Your task to perform on an android device: Open notification settings Image 0: 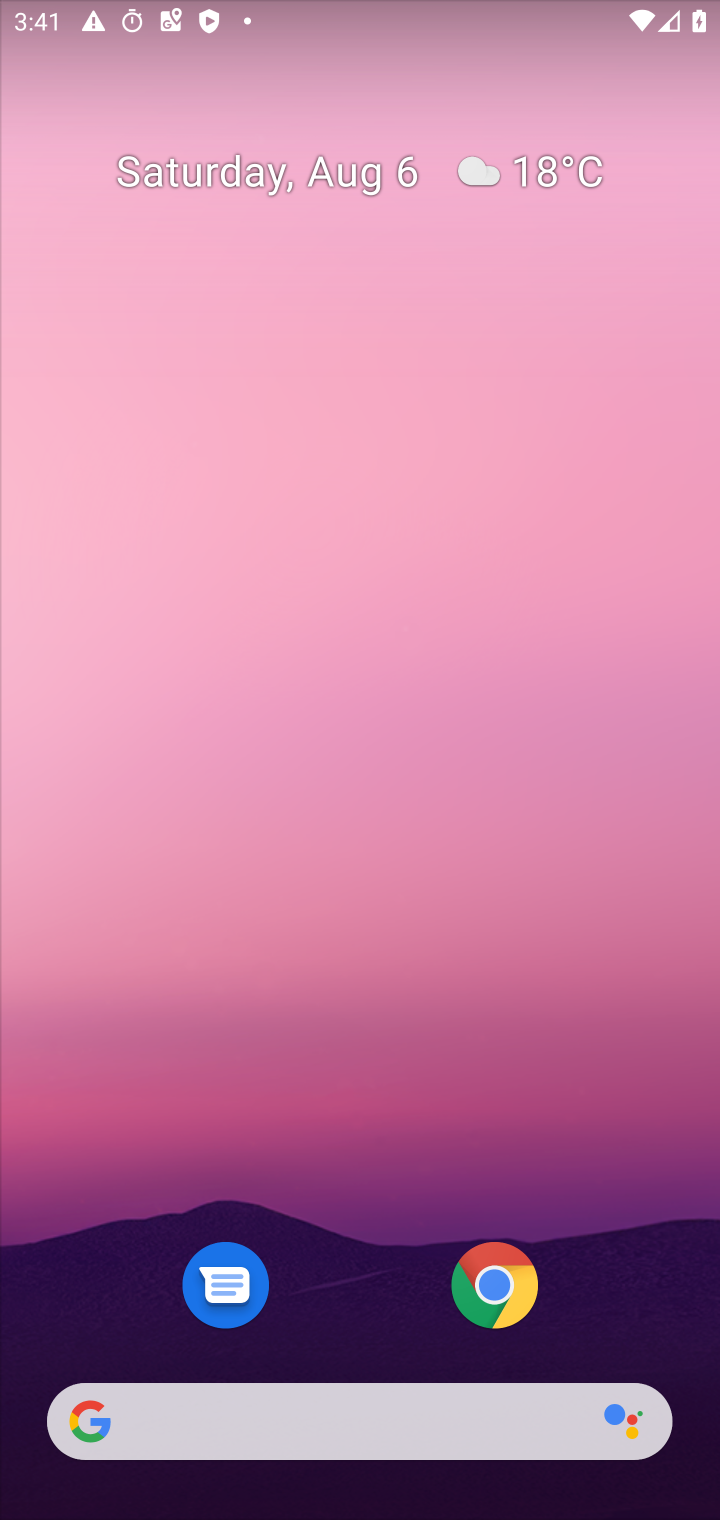
Step 0: press home button
Your task to perform on an android device: Open notification settings Image 1: 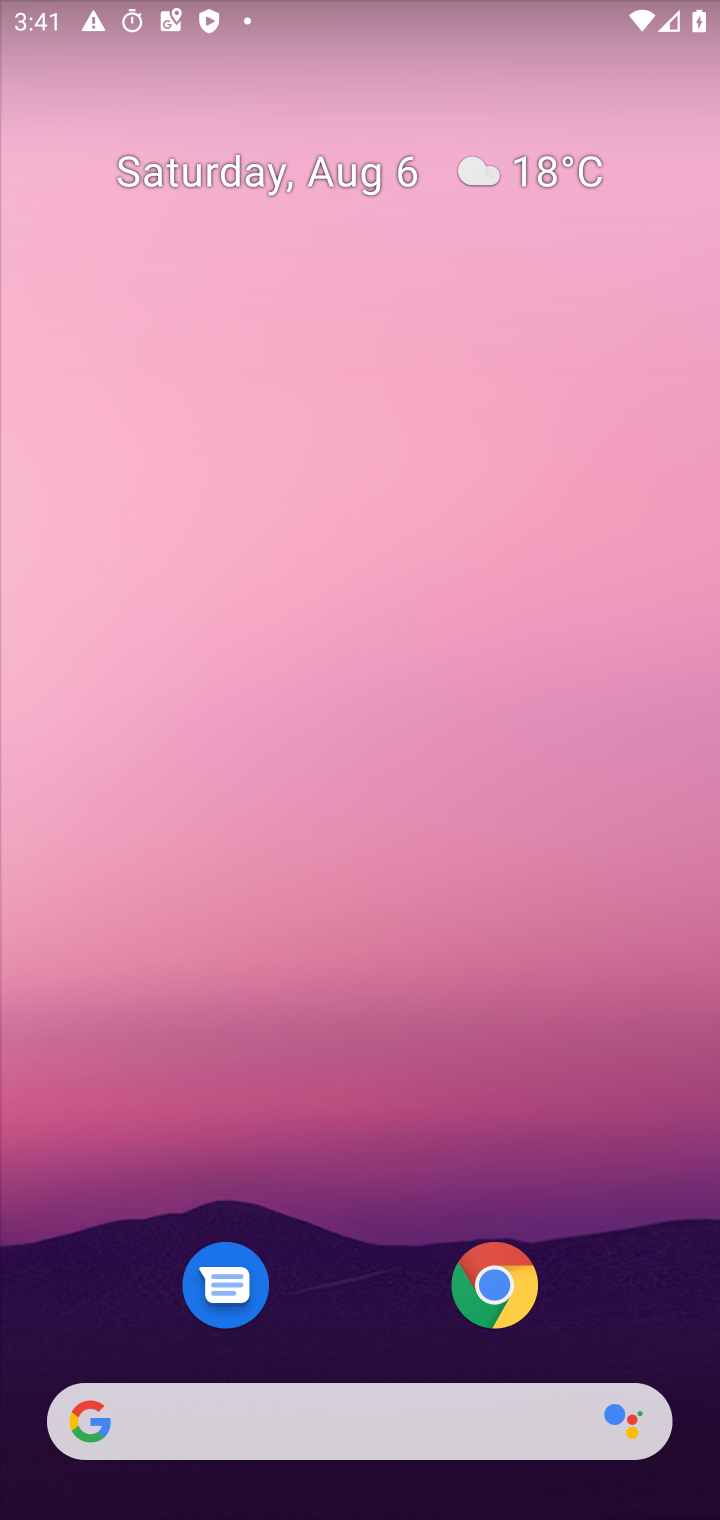
Step 1: drag from (374, 1343) to (417, 189)
Your task to perform on an android device: Open notification settings Image 2: 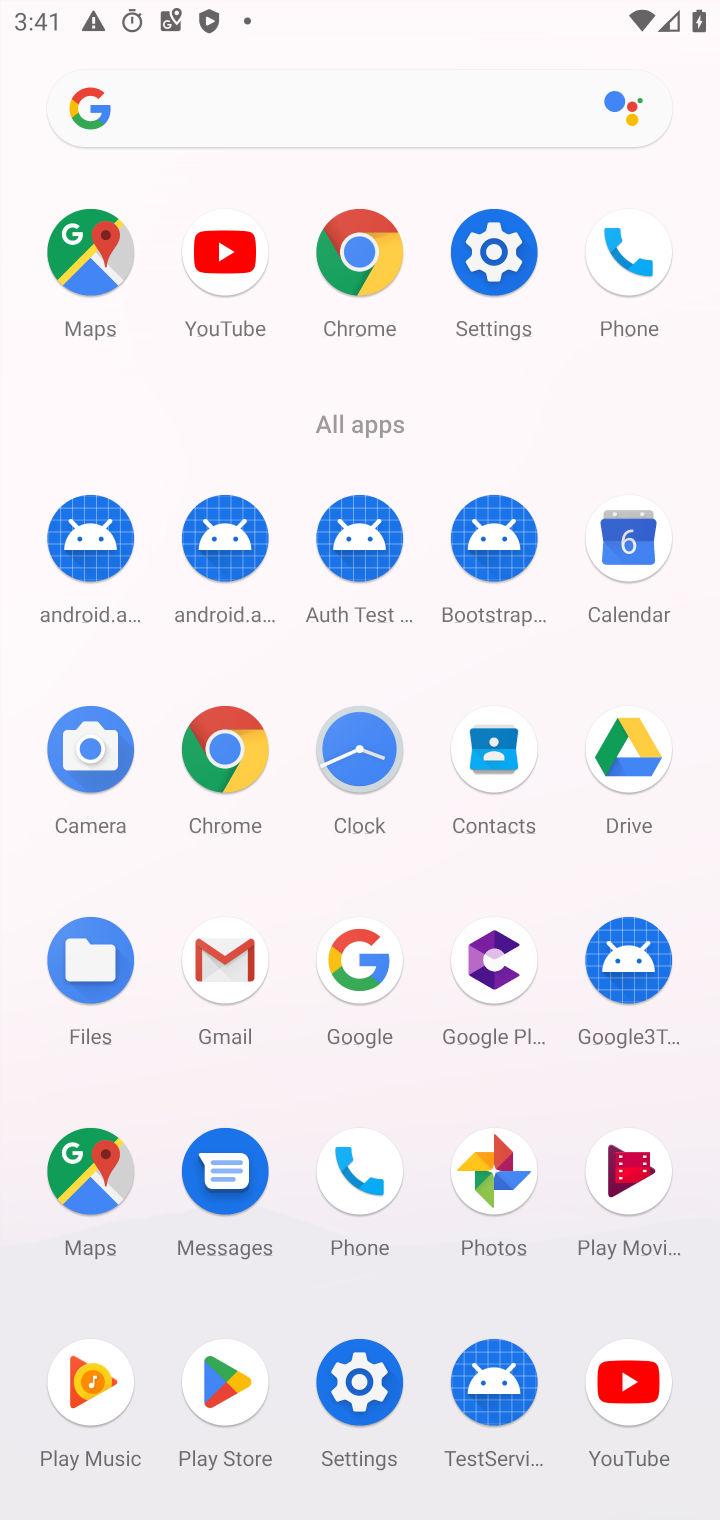
Step 2: click (486, 243)
Your task to perform on an android device: Open notification settings Image 3: 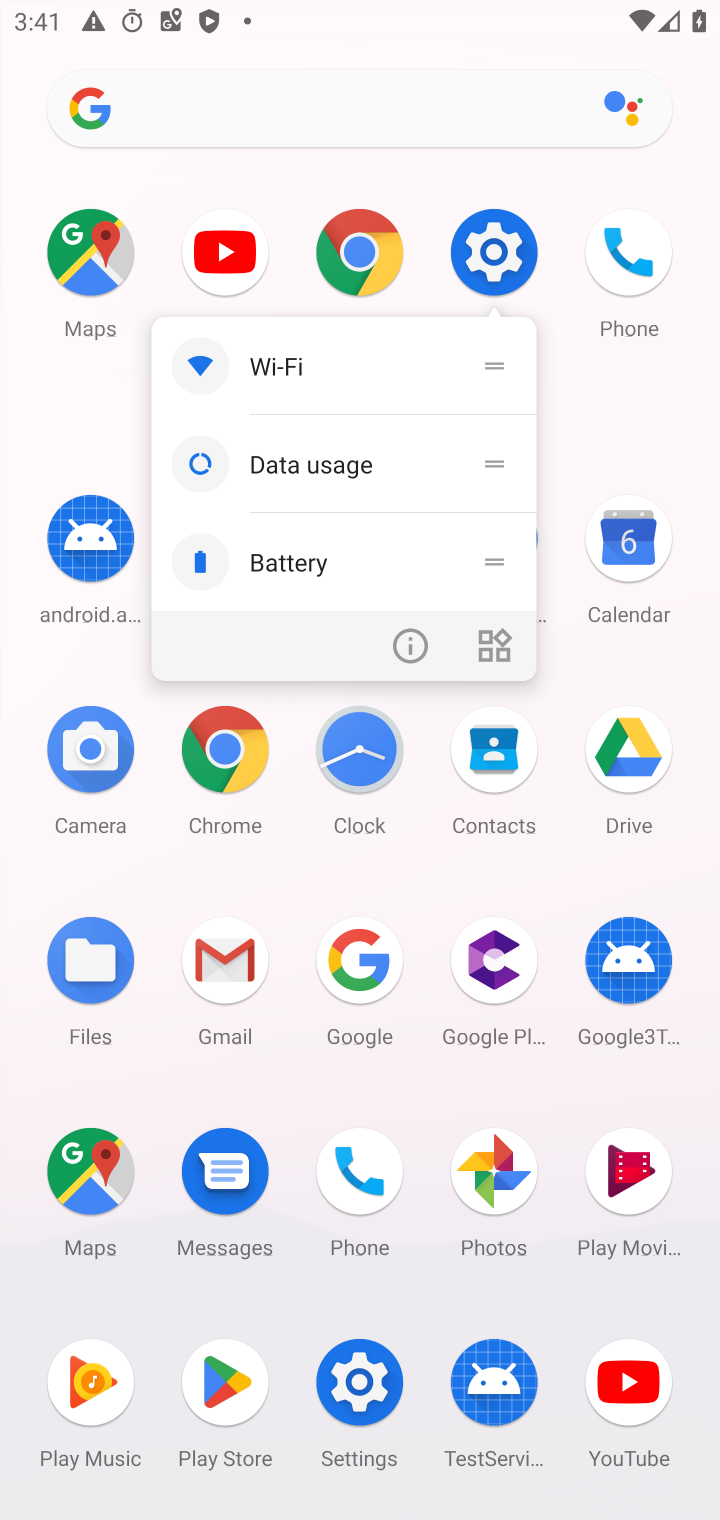
Step 3: click (491, 236)
Your task to perform on an android device: Open notification settings Image 4: 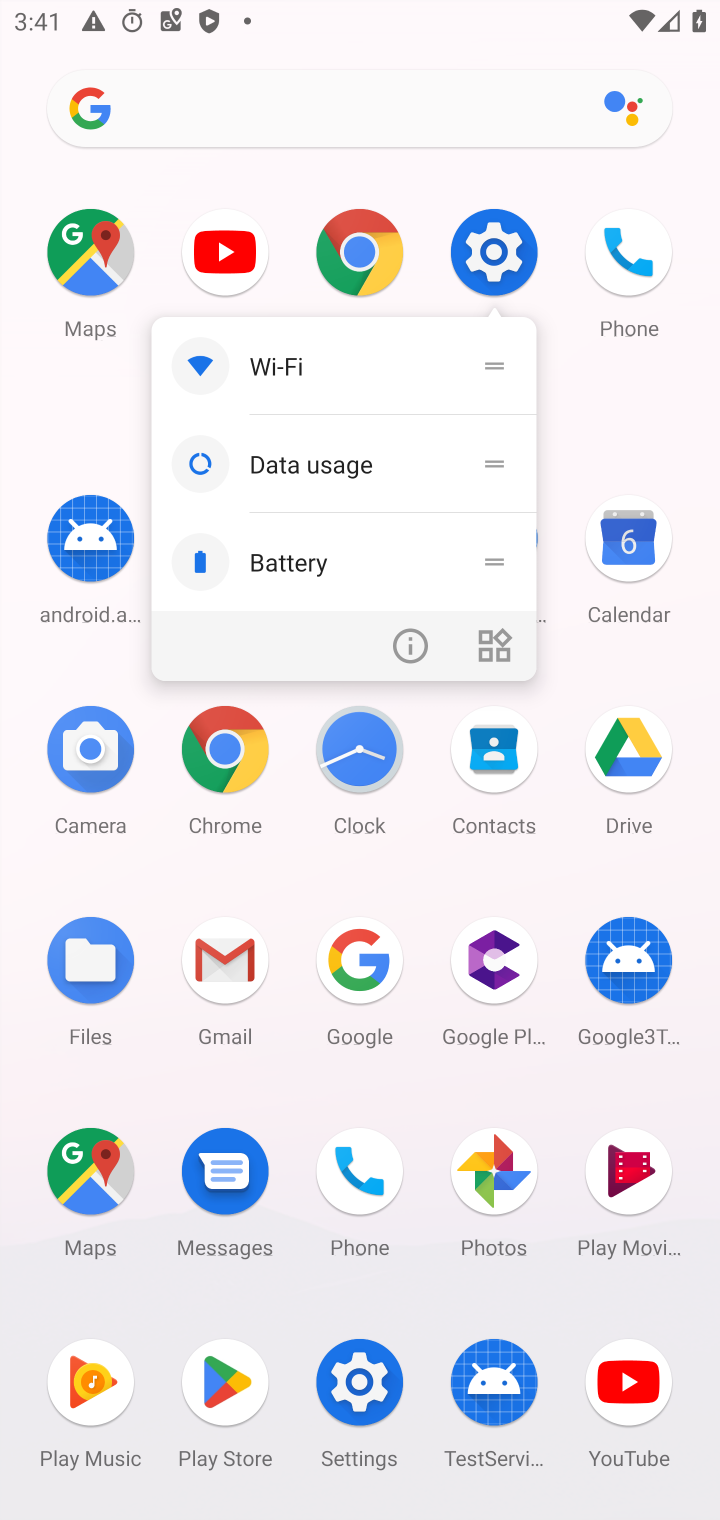
Step 4: click (485, 249)
Your task to perform on an android device: Open notification settings Image 5: 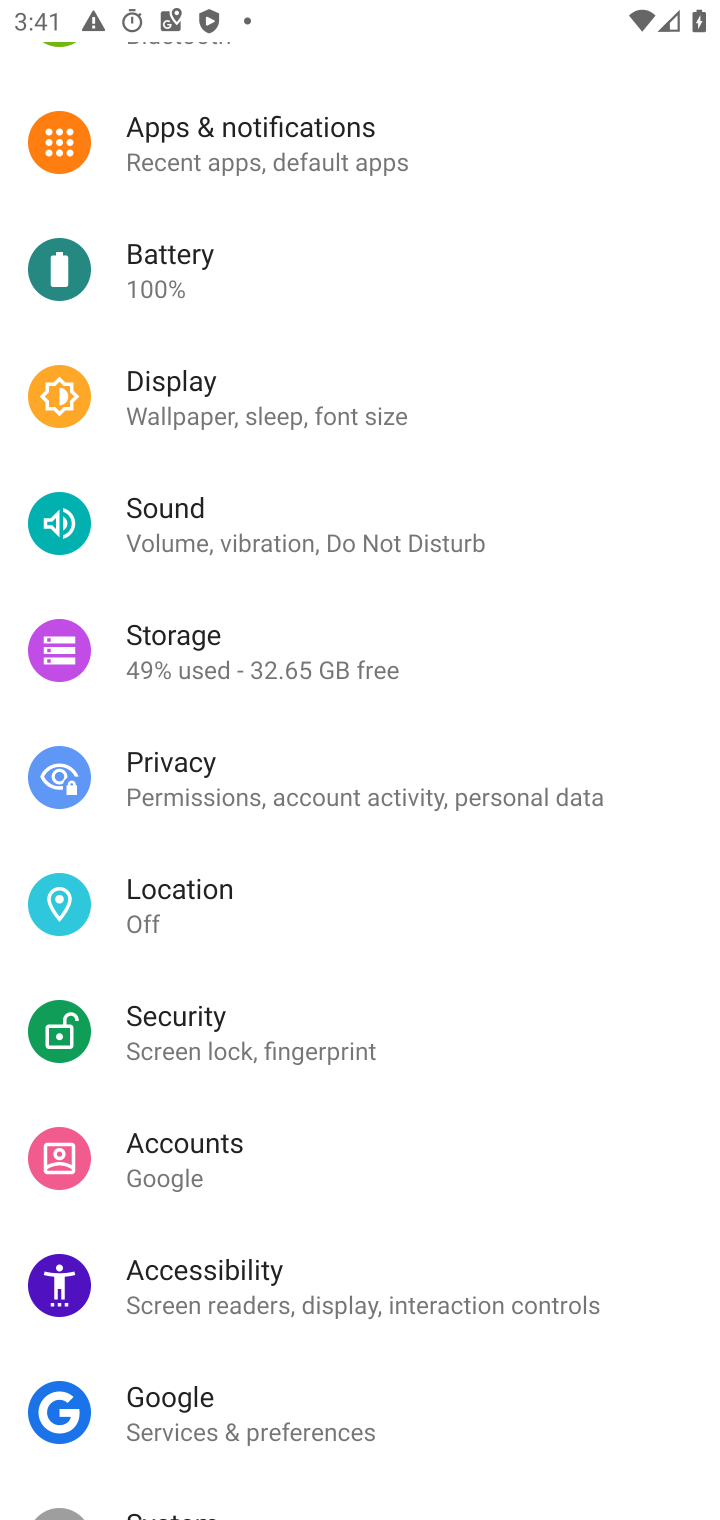
Step 5: click (265, 142)
Your task to perform on an android device: Open notification settings Image 6: 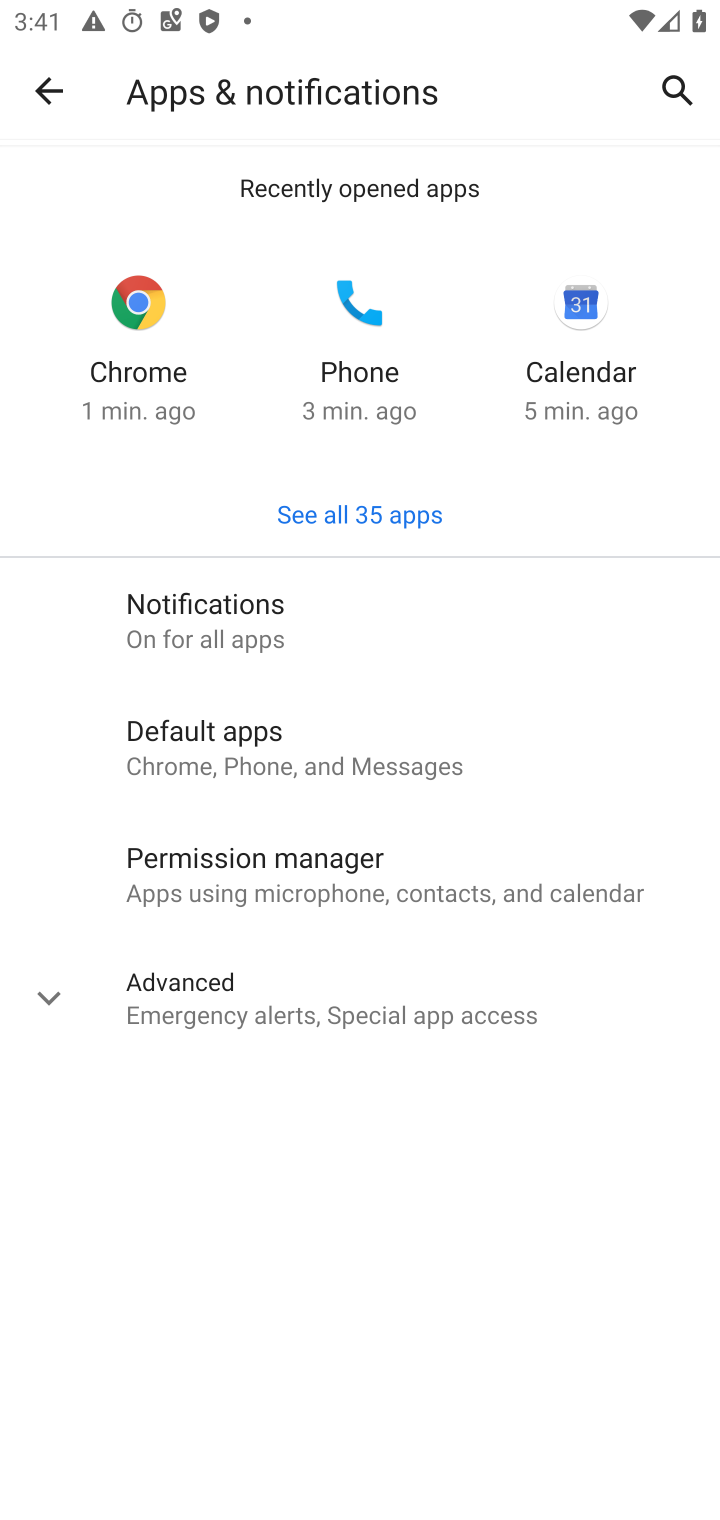
Step 6: click (229, 624)
Your task to perform on an android device: Open notification settings Image 7: 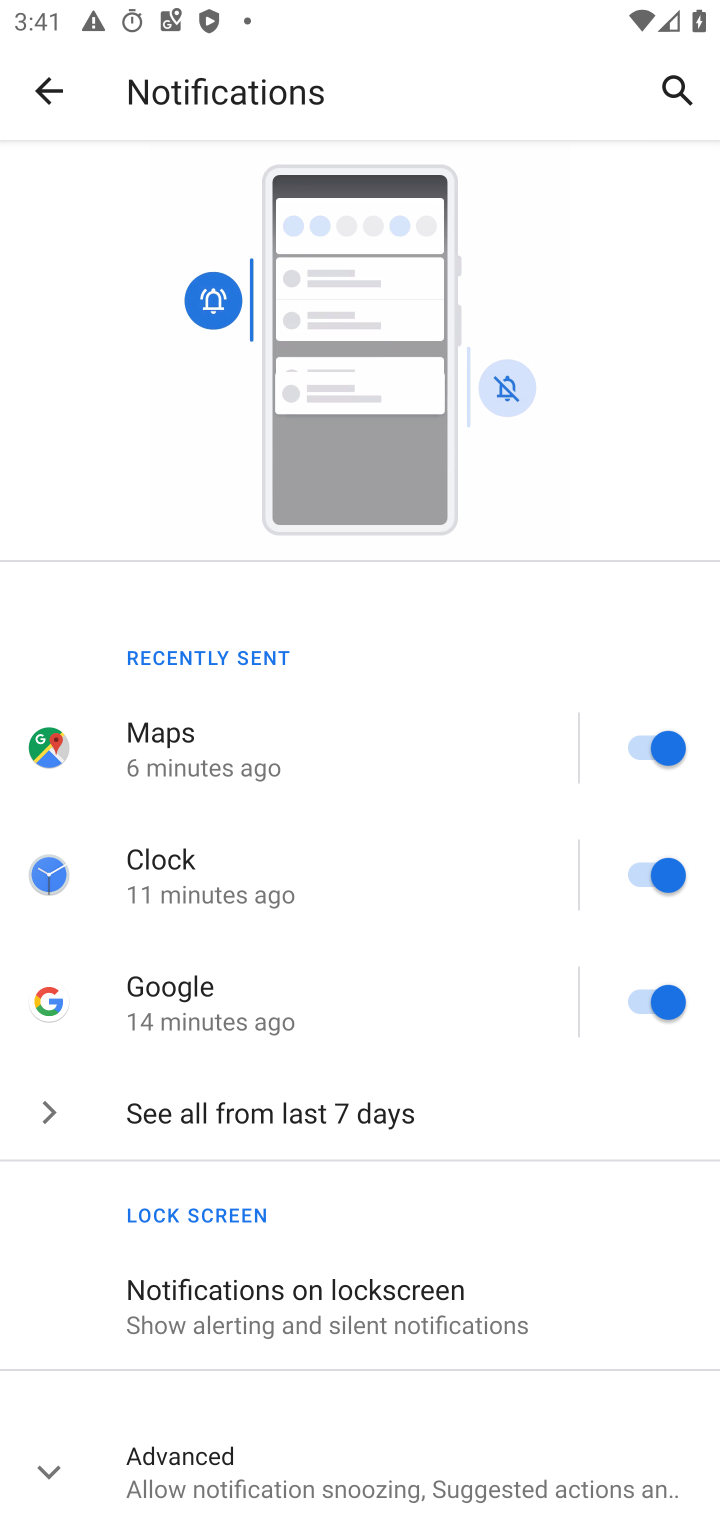
Step 7: click (44, 1476)
Your task to perform on an android device: Open notification settings Image 8: 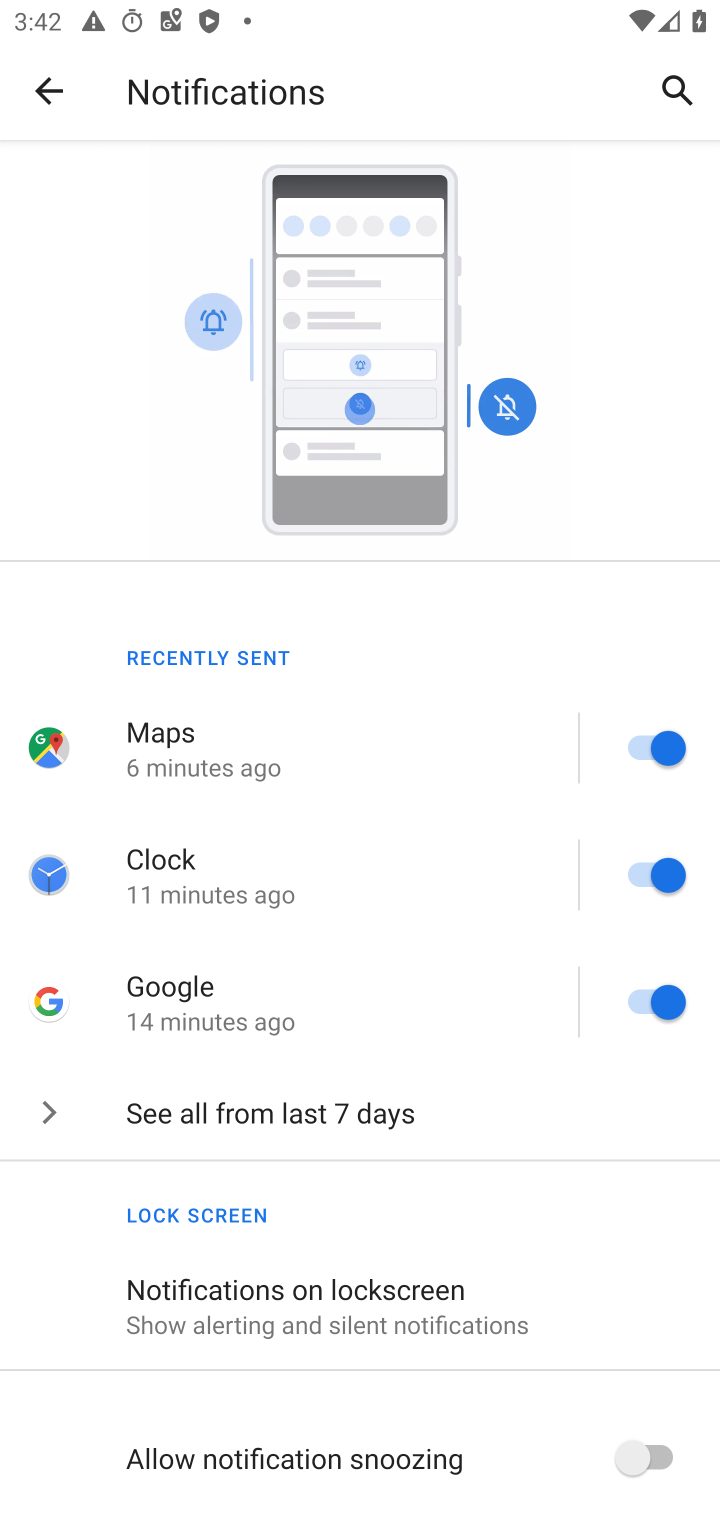
Step 8: task complete